Your task to perform on an android device: turn off improve location accuracy Image 0: 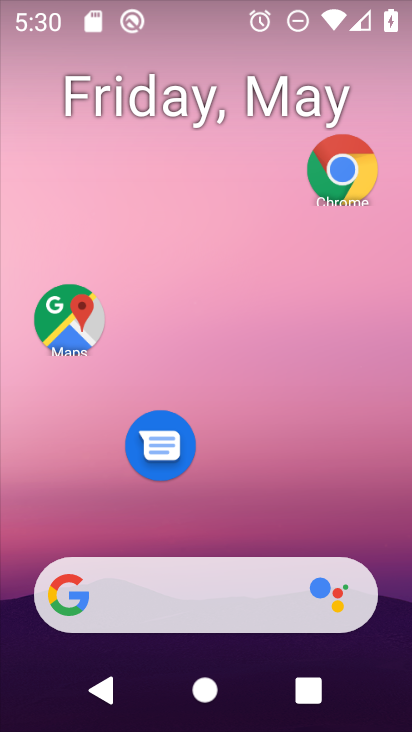
Step 0: click (359, 173)
Your task to perform on an android device: turn off improve location accuracy Image 1: 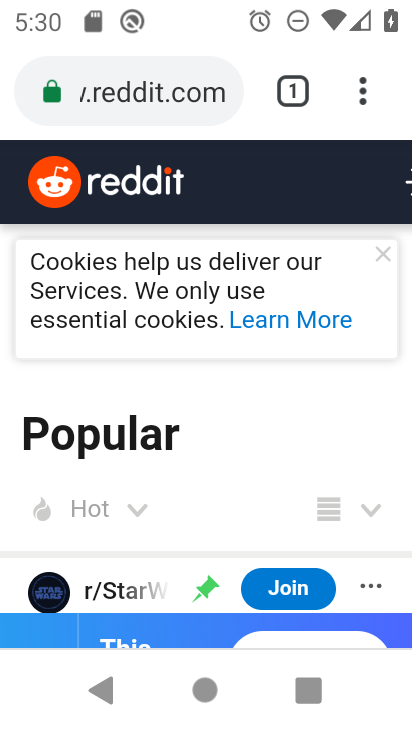
Step 1: press home button
Your task to perform on an android device: turn off improve location accuracy Image 2: 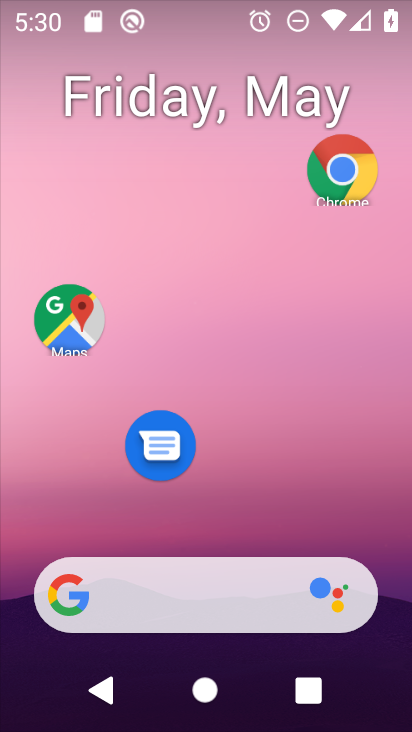
Step 2: drag from (194, 510) to (258, 17)
Your task to perform on an android device: turn off improve location accuracy Image 3: 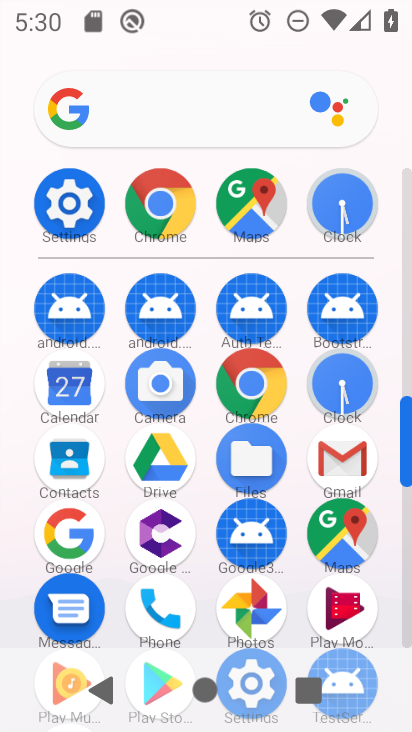
Step 3: click (68, 201)
Your task to perform on an android device: turn off improve location accuracy Image 4: 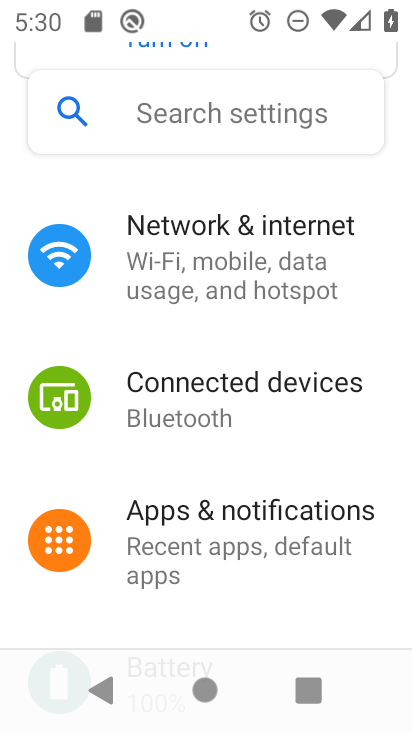
Step 4: drag from (198, 548) to (213, 194)
Your task to perform on an android device: turn off improve location accuracy Image 5: 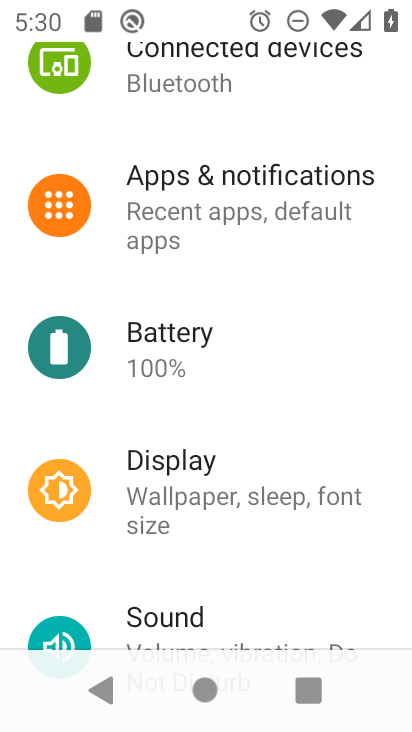
Step 5: drag from (238, 582) to (238, 136)
Your task to perform on an android device: turn off improve location accuracy Image 6: 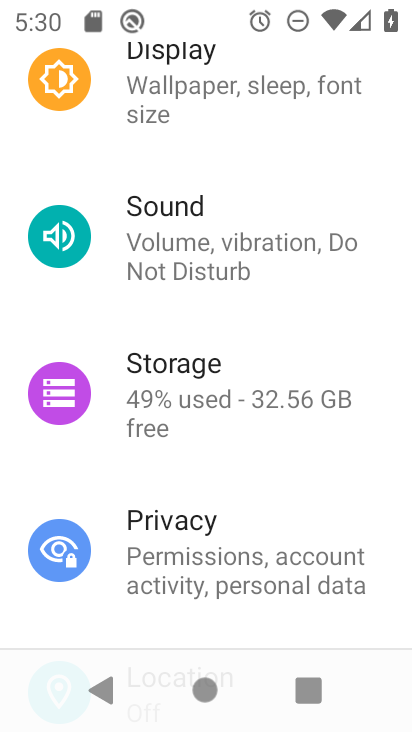
Step 6: drag from (180, 333) to (180, 174)
Your task to perform on an android device: turn off improve location accuracy Image 7: 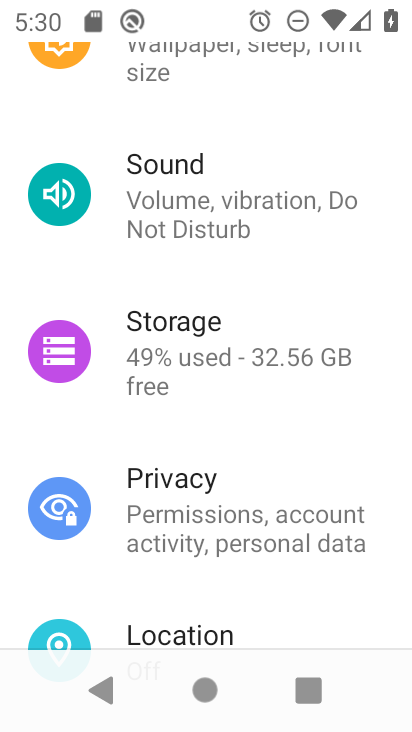
Step 7: click (155, 629)
Your task to perform on an android device: turn off improve location accuracy Image 8: 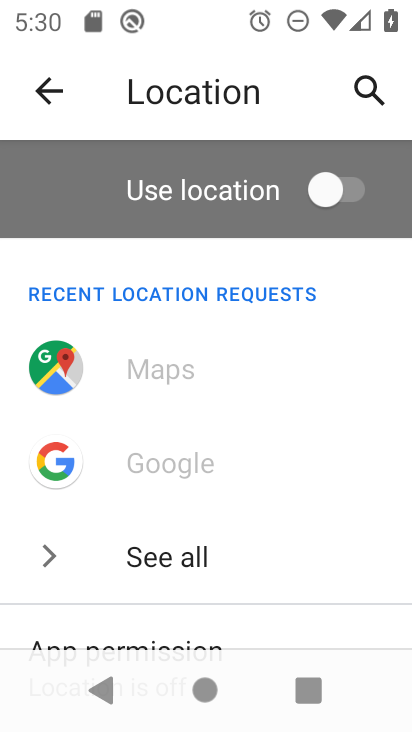
Step 8: drag from (184, 560) to (197, 174)
Your task to perform on an android device: turn off improve location accuracy Image 9: 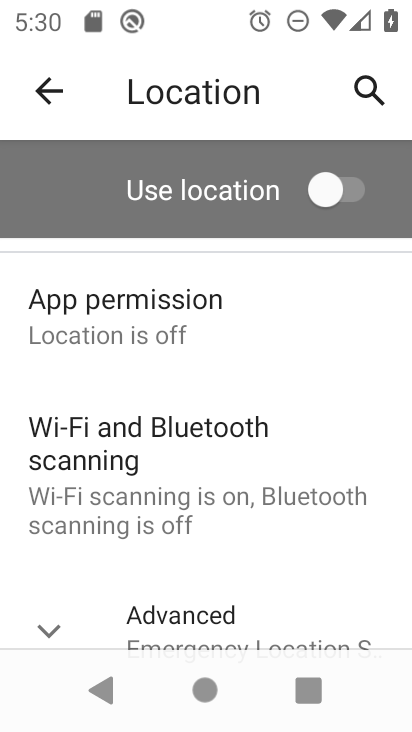
Step 9: drag from (206, 575) to (199, 212)
Your task to perform on an android device: turn off improve location accuracy Image 10: 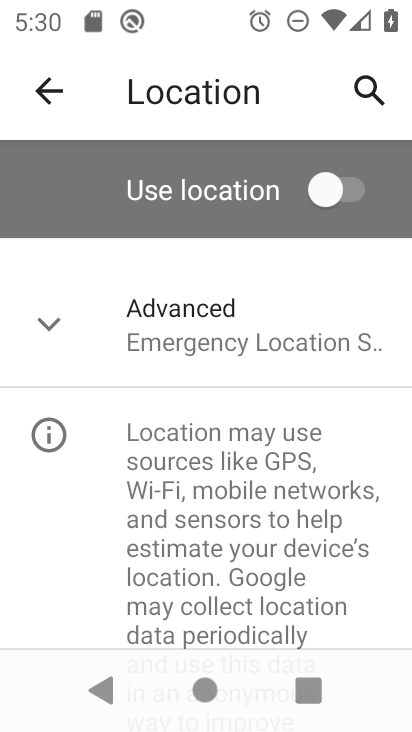
Step 10: click (165, 328)
Your task to perform on an android device: turn off improve location accuracy Image 11: 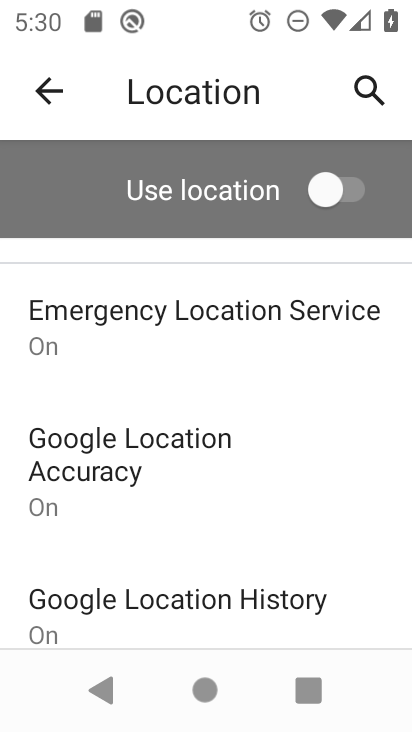
Step 11: click (98, 478)
Your task to perform on an android device: turn off improve location accuracy Image 12: 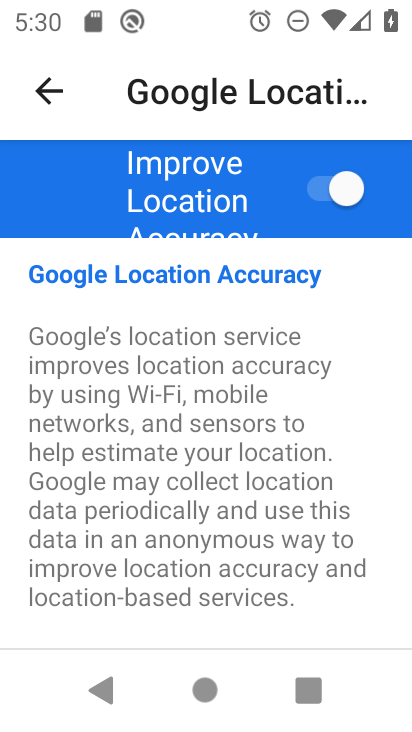
Step 12: click (314, 193)
Your task to perform on an android device: turn off improve location accuracy Image 13: 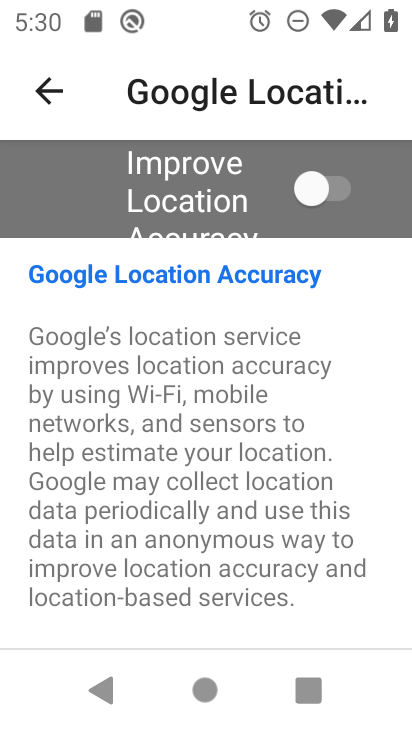
Step 13: task complete